Your task to perform on an android device: toggle notifications settings in the gmail app Image 0: 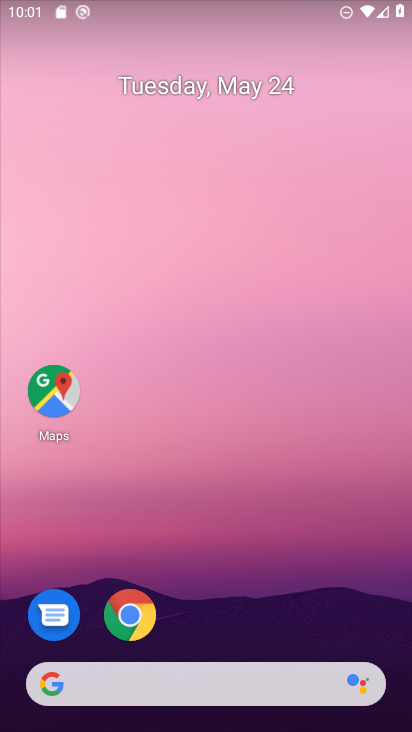
Step 0: drag from (351, 616) to (338, 180)
Your task to perform on an android device: toggle notifications settings in the gmail app Image 1: 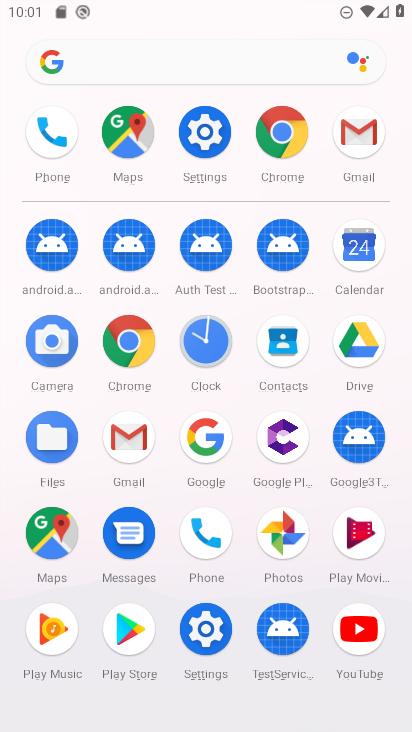
Step 1: click (139, 445)
Your task to perform on an android device: toggle notifications settings in the gmail app Image 2: 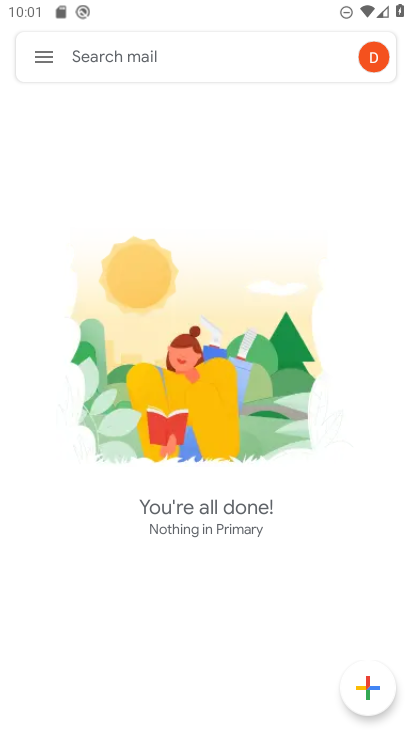
Step 2: click (43, 60)
Your task to perform on an android device: toggle notifications settings in the gmail app Image 3: 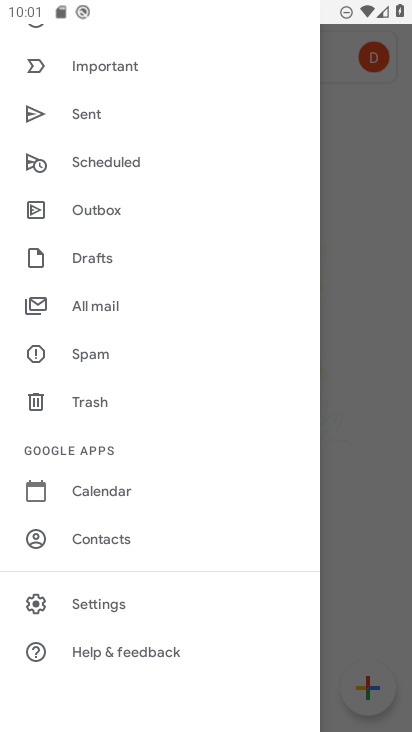
Step 3: click (146, 604)
Your task to perform on an android device: toggle notifications settings in the gmail app Image 4: 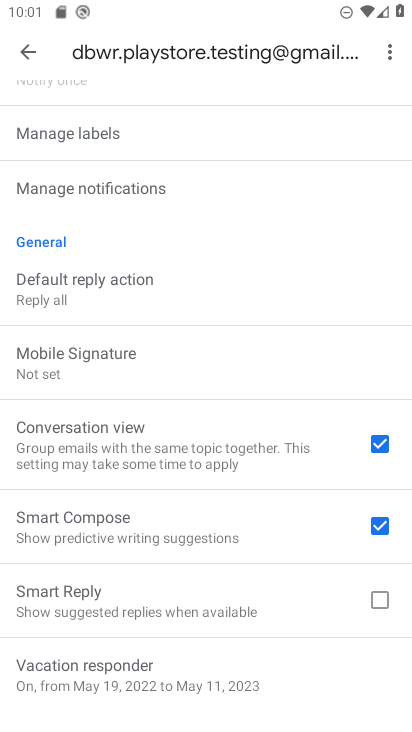
Step 4: drag from (292, 595) to (293, 490)
Your task to perform on an android device: toggle notifications settings in the gmail app Image 5: 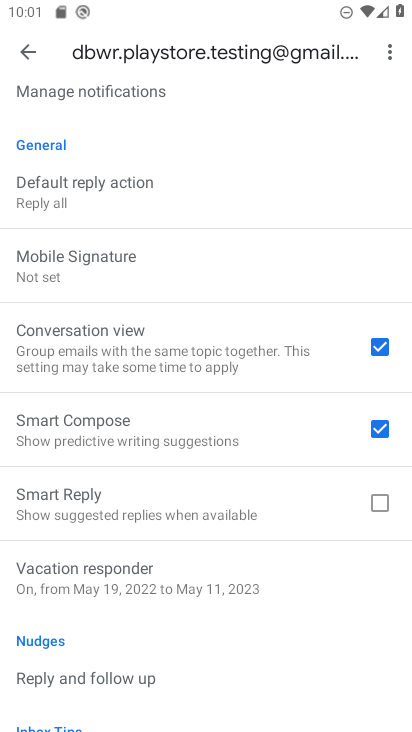
Step 5: drag from (276, 654) to (287, 478)
Your task to perform on an android device: toggle notifications settings in the gmail app Image 6: 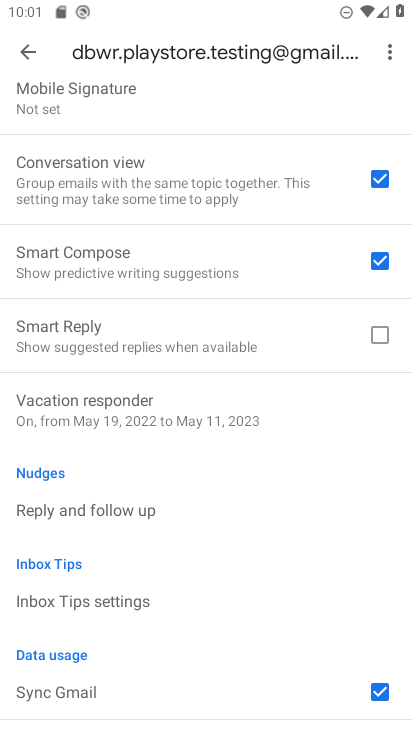
Step 6: drag from (294, 653) to (302, 351)
Your task to perform on an android device: toggle notifications settings in the gmail app Image 7: 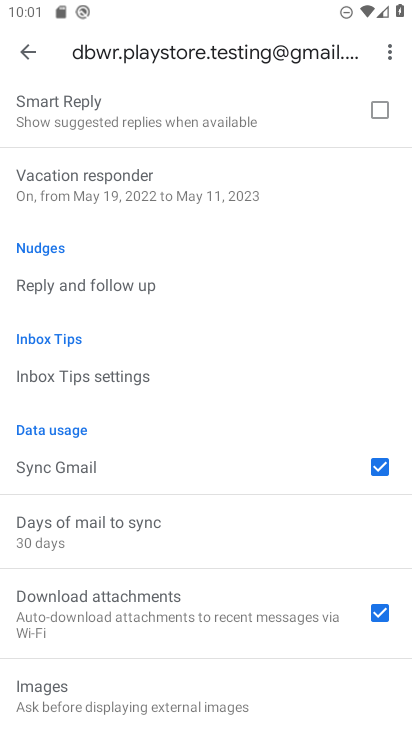
Step 7: drag from (288, 257) to (260, 411)
Your task to perform on an android device: toggle notifications settings in the gmail app Image 8: 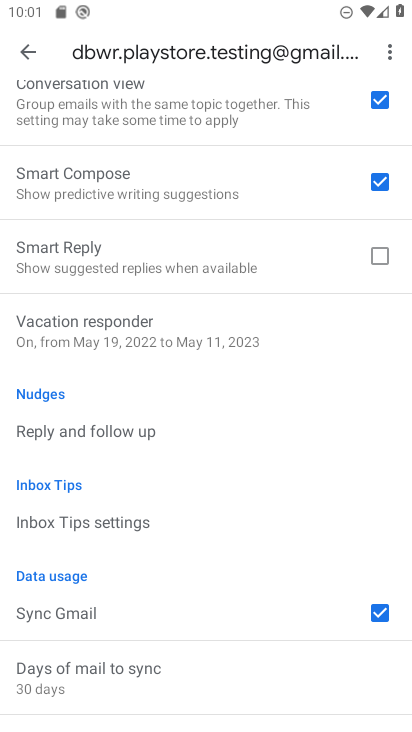
Step 8: drag from (287, 269) to (269, 423)
Your task to perform on an android device: toggle notifications settings in the gmail app Image 9: 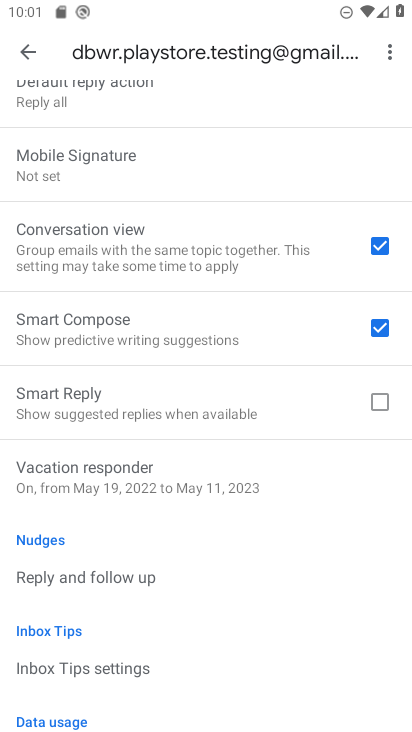
Step 9: drag from (290, 271) to (285, 386)
Your task to perform on an android device: toggle notifications settings in the gmail app Image 10: 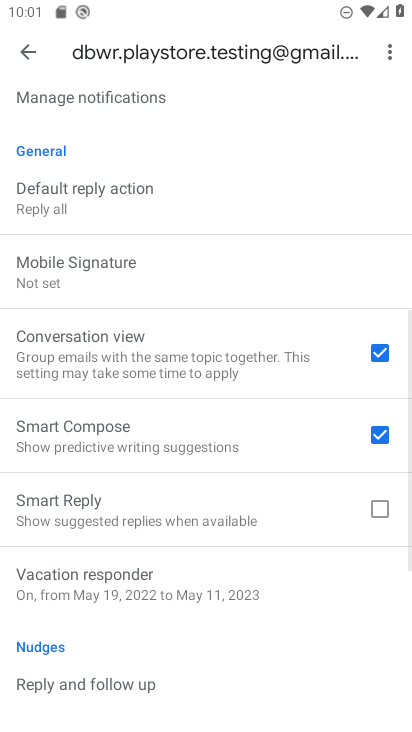
Step 10: drag from (284, 191) to (287, 324)
Your task to perform on an android device: toggle notifications settings in the gmail app Image 11: 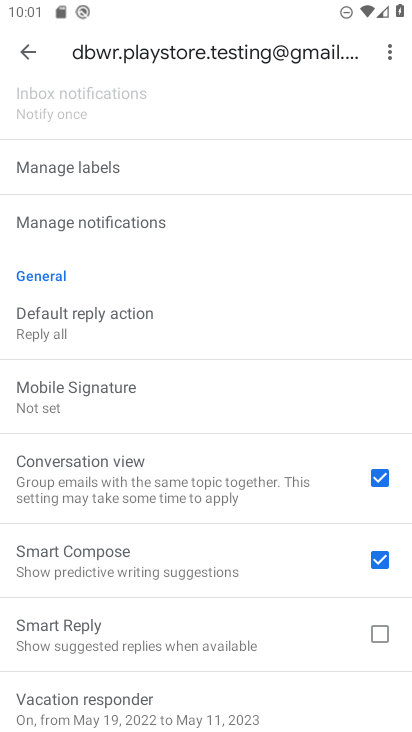
Step 11: click (194, 234)
Your task to perform on an android device: toggle notifications settings in the gmail app Image 12: 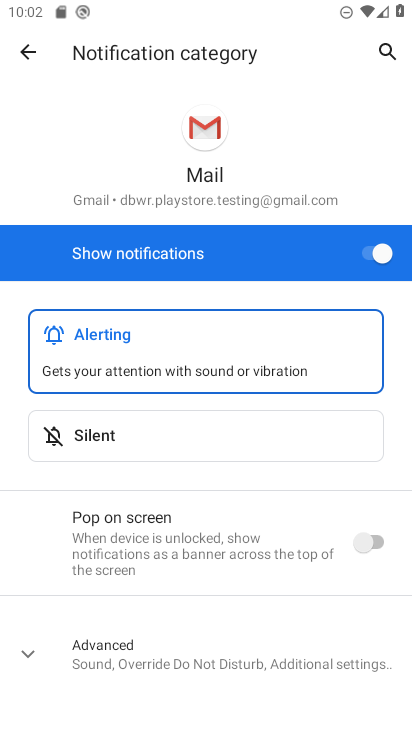
Step 12: click (381, 251)
Your task to perform on an android device: toggle notifications settings in the gmail app Image 13: 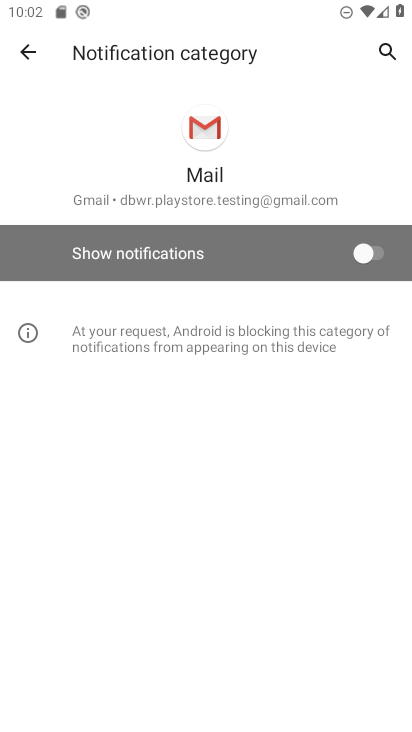
Step 13: task complete